Your task to perform on an android device: toggle priority inbox in the gmail app Image 0: 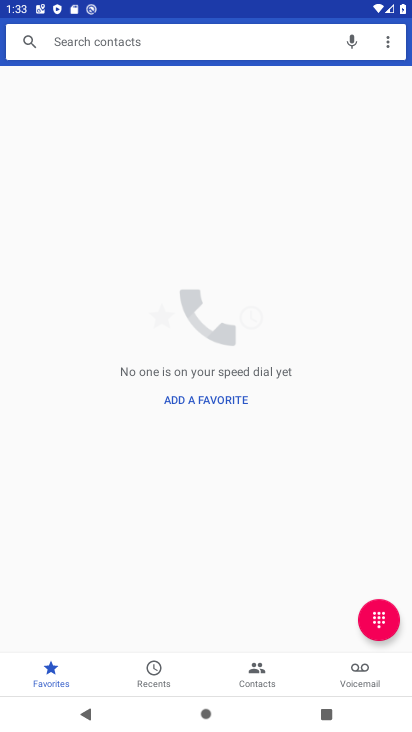
Step 0: press home button
Your task to perform on an android device: toggle priority inbox in the gmail app Image 1: 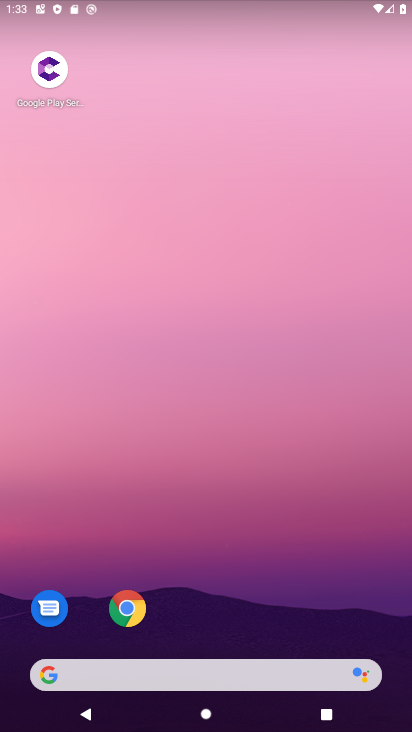
Step 1: drag from (323, 579) to (259, 65)
Your task to perform on an android device: toggle priority inbox in the gmail app Image 2: 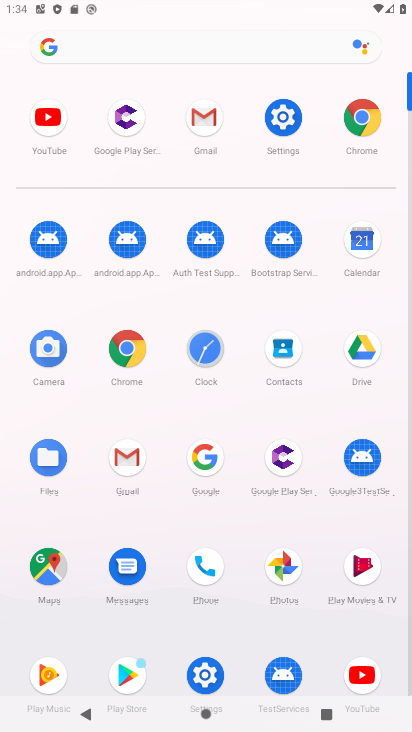
Step 2: click (201, 118)
Your task to perform on an android device: toggle priority inbox in the gmail app Image 3: 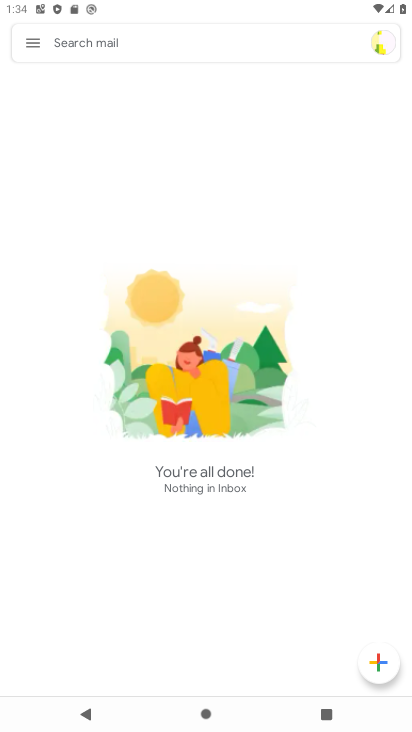
Step 3: click (38, 34)
Your task to perform on an android device: toggle priority inbox in the gmail app Image 4: 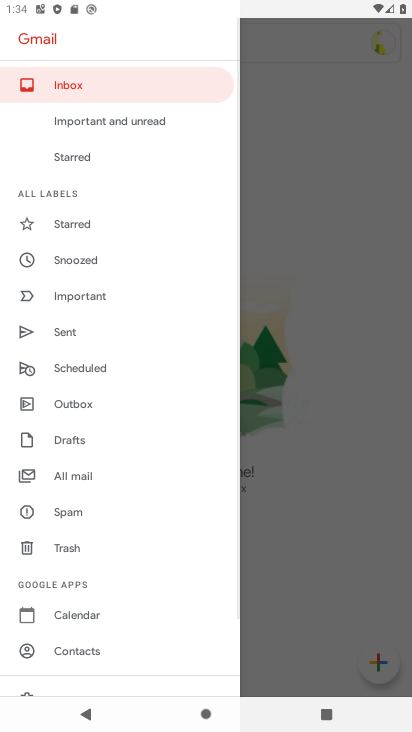
Step 4: drag from (33, 592) to (104, 253)
Your task to perform on an android device: toggle priority inbox in the gmail app Image 5: 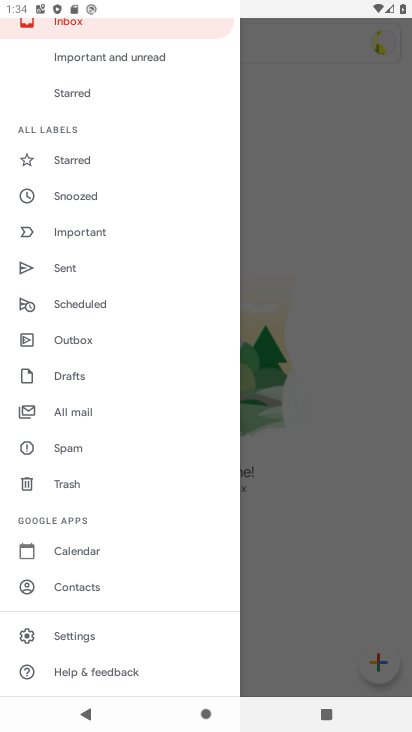
Step 5: click (53, 627)
Your task to perform on an android device: toggle priority inbox in the gmail app Image 6: 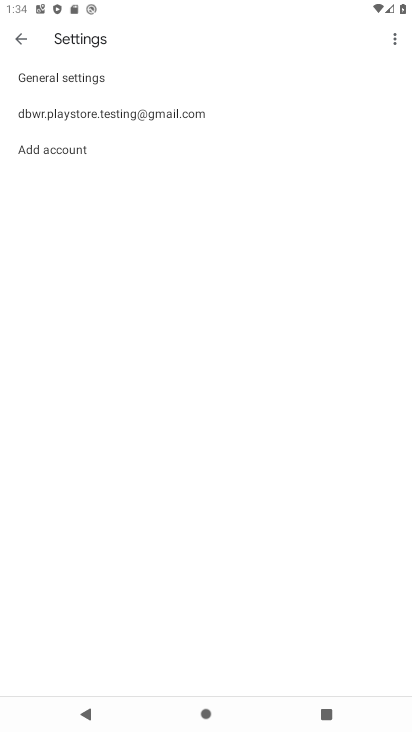
Step 6: click (53, 109)
Your task to perform on an android device: toggle priority inbox in the gmail app Image 7: 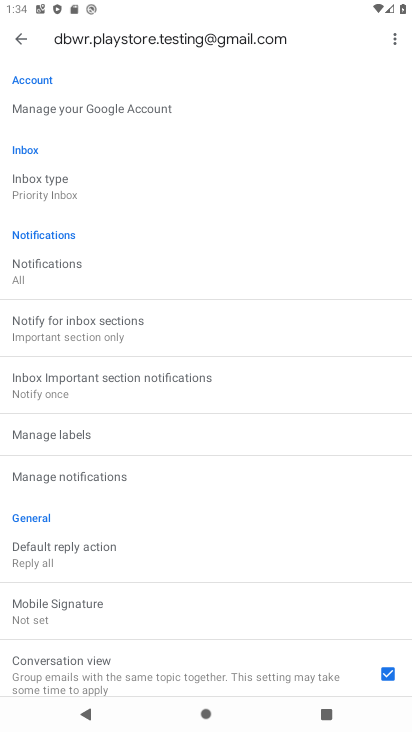
Step 7: click (59, 189)
Your task to perform on an android device: toggle priority inbox in the gmail app Image 8: 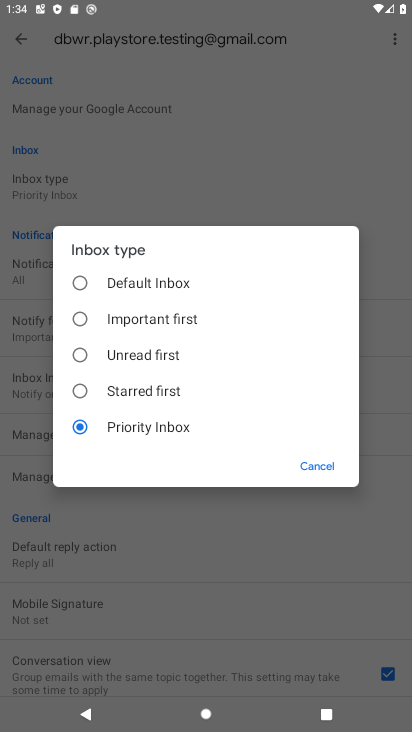
Step 8: click (82, 286)
Your task to perform on an android device: toggle priority inbox in the gmail app Image 9: 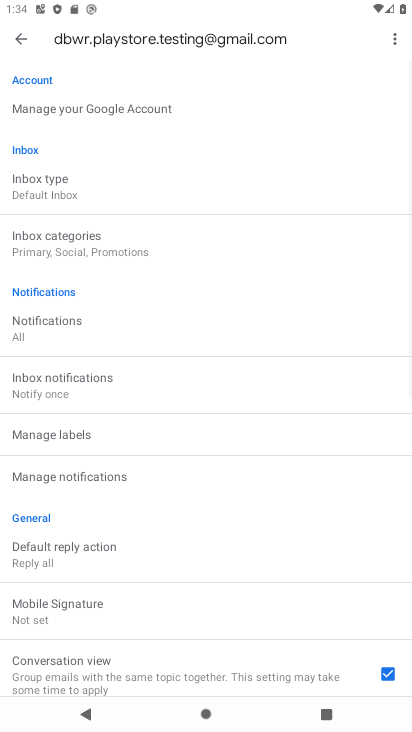
Step 9: task complete